Your task to perform on an android device: turn off location Image 0: 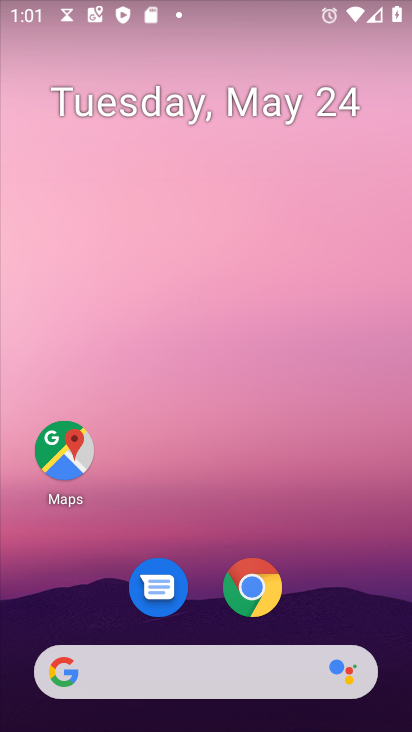
Step 0: drag from (193, 676) to (116, 325)
Your task to perform on an android device: turn off location Image 1: 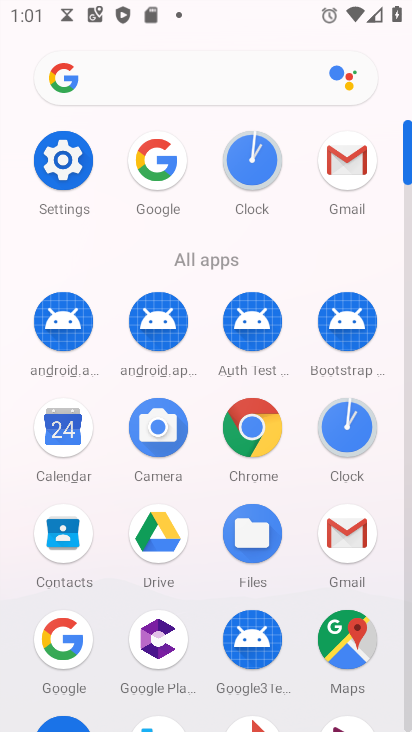
Step 1: click (50, 173)
Your task to perform on an android device: turn off location Image 2: 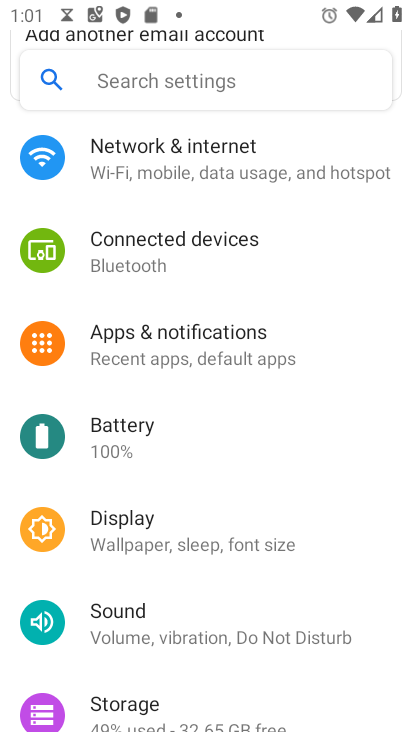
Step 2: drag from (228, 585) to (232, 213)
Your task to perform on an android device: turn off location Image 3: 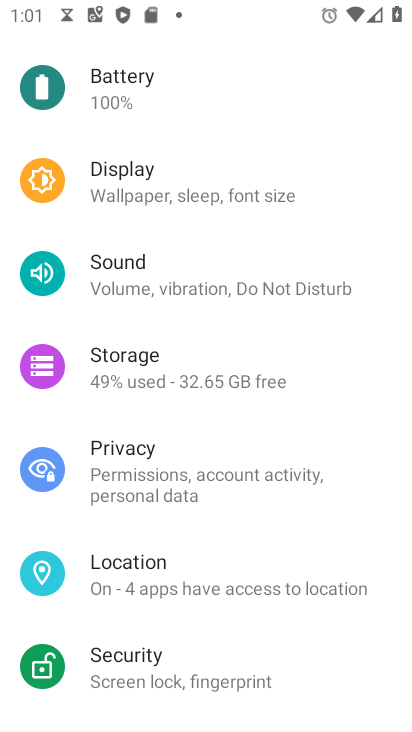
Step 3: click (138, 554)
Your task to perform on an android device: turn off location Image 4: 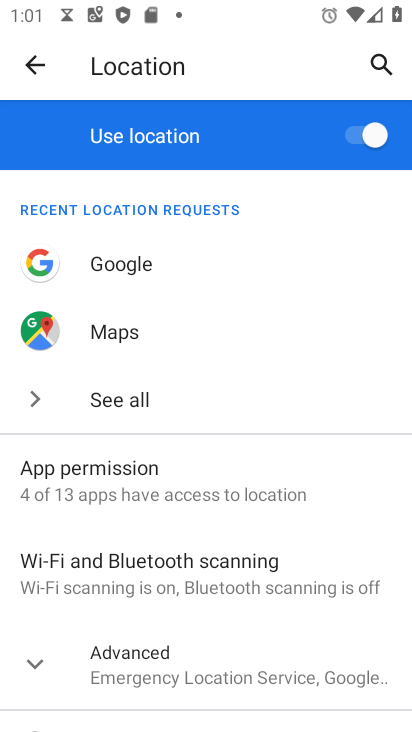
Step 4: click (352, 140)
Your task to perform on an android device: turn off location Image 5: 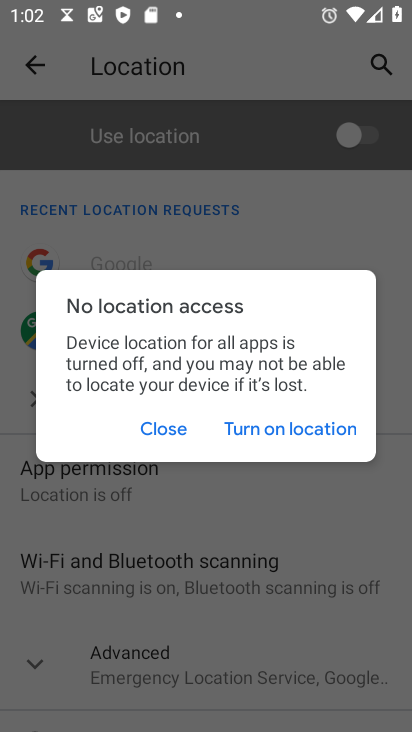
Step 5: click (171, 429)
Your task to perform on an android device: turn off location Image 6: 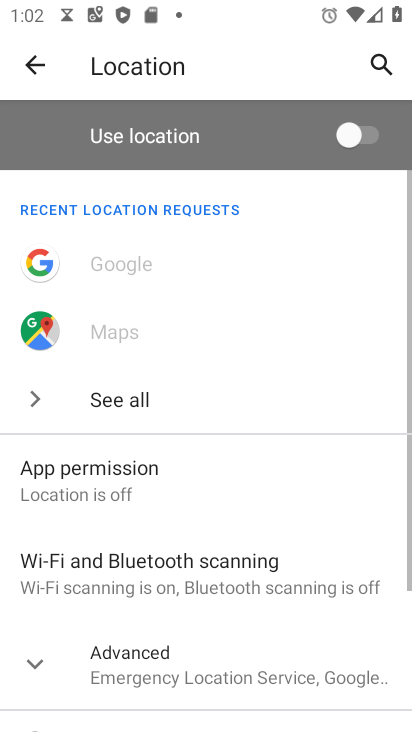
Step 6: task complete